Your task to perform on an android device: turn off location history Image 0: 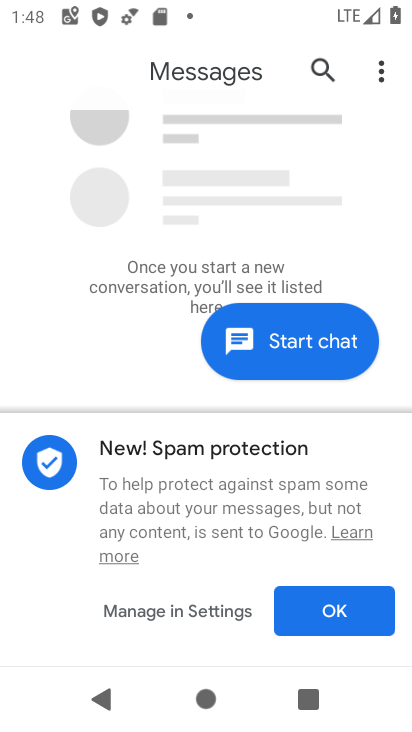
Step 0: press home button
Your task to perform on an android device: turn off location history Image 1: 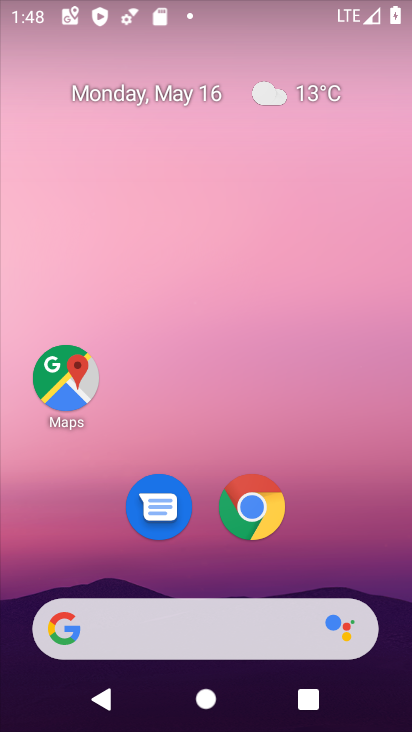
Step 1: drag from (329, 523) to (221, 57)
Your task to perform on an android device: turn off location history Image 2: 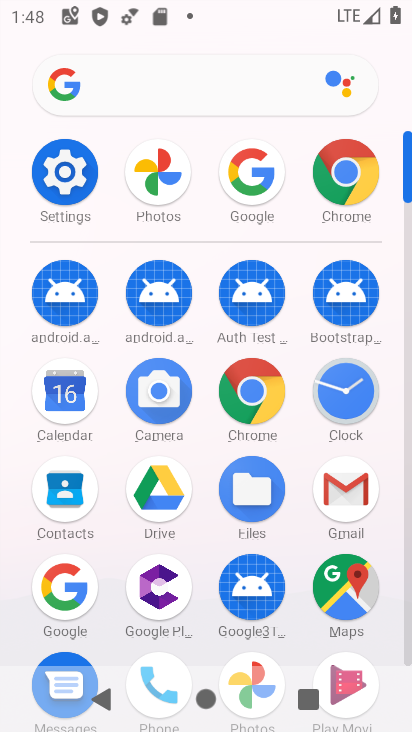
Step 2: click (56, 194)
Your task to perform on an android device: turn off location history Image 3: 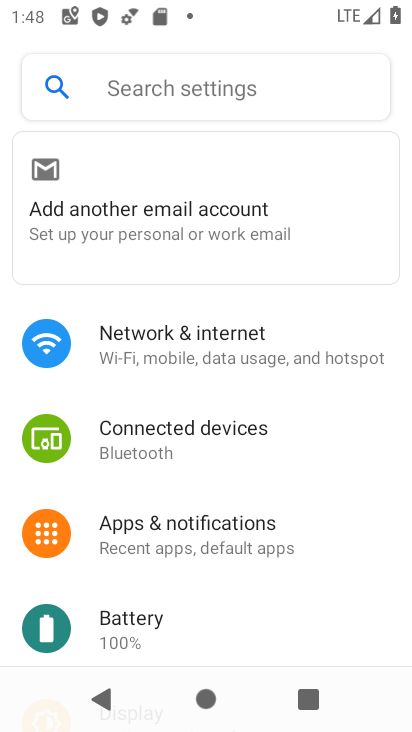
Step 3: drag from (240, 547) to (235, 172)
Your task to perform on an android device: turn off location history Image 4: 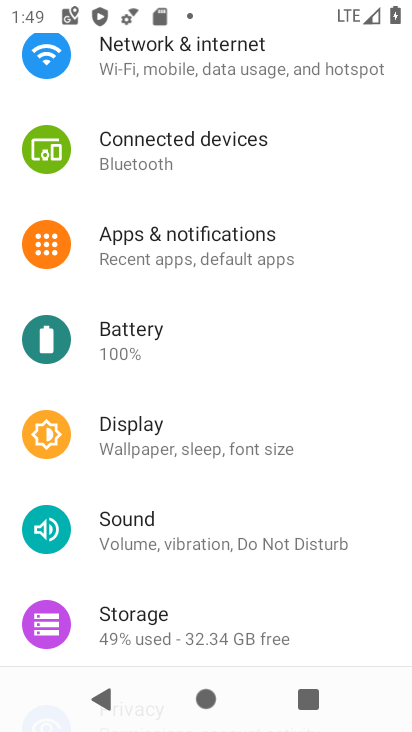
Step 4: drag from (210, 533) to (220, 314)
Your task to perform on an android device: turn off location history Image 5: 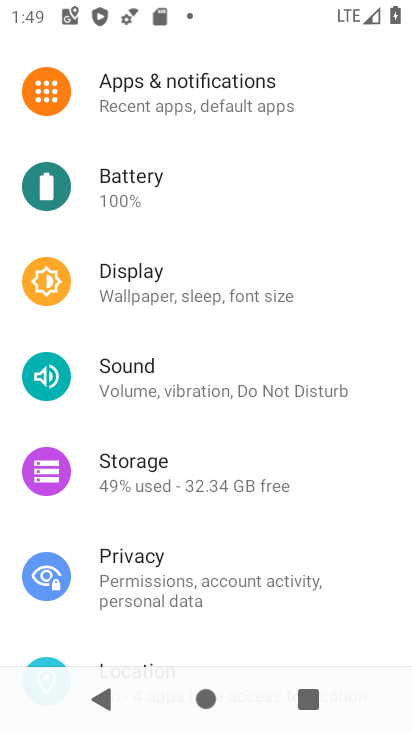
Step 5: drag from (185, 557) to (204, 317)
Your task to perform on an android device: turn off location history Image 6: 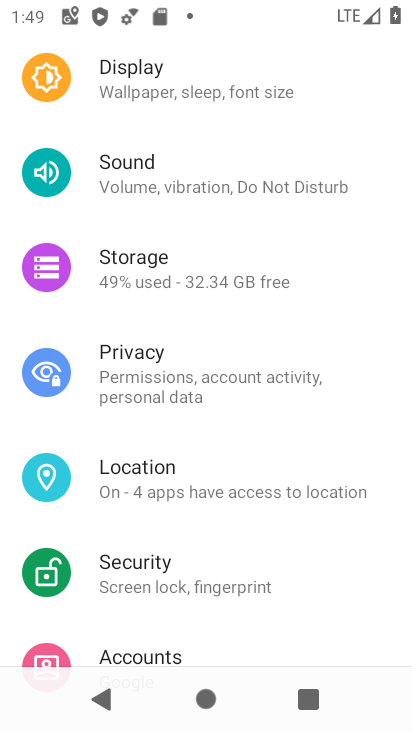
Step 6: click (186, 483)
Your task to perform on an android device: turn off location history Image 7: 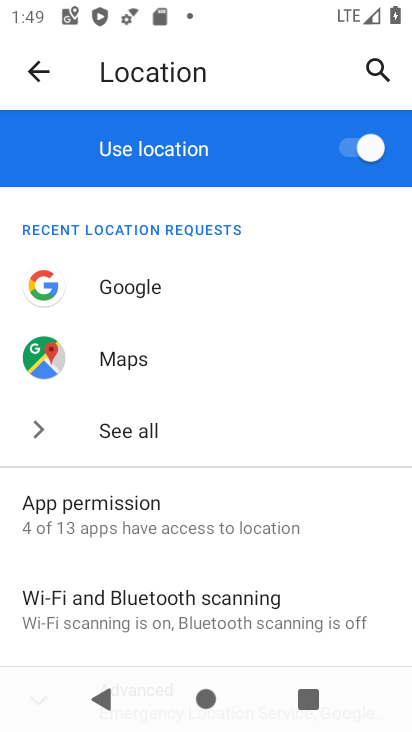
Step 7: drag from (231, 517) to (210, 164)
Your task to perform on an android device: turn off location history Image 8: 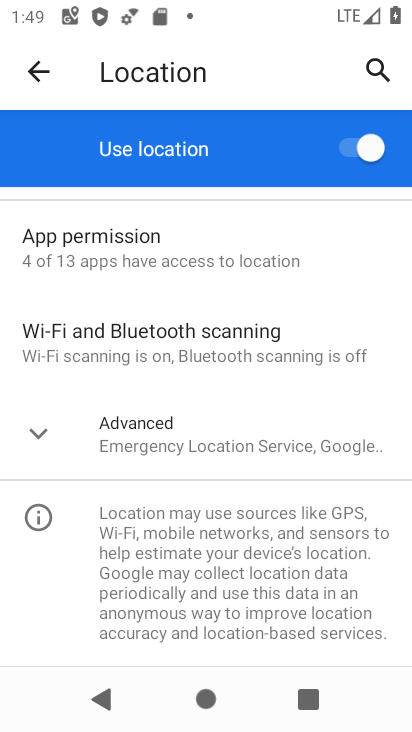
Step 8: click (220, 451)
Your task to perform on an android device: turn off location history Image 9: 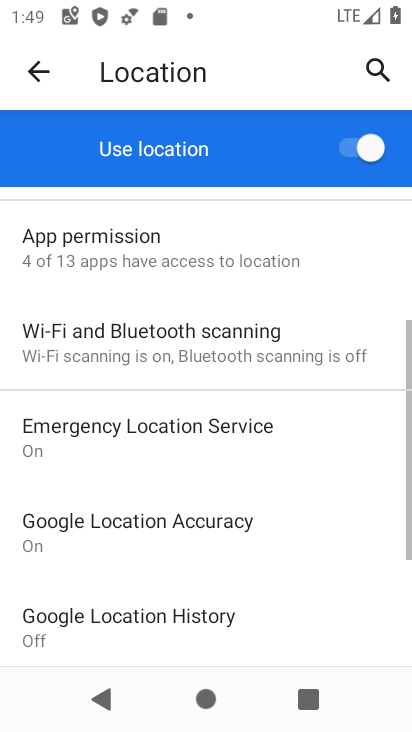
Step 9: drag from (250, 546) to (254, 424)
Your task to perform on an android device: turn off location history Image 10: 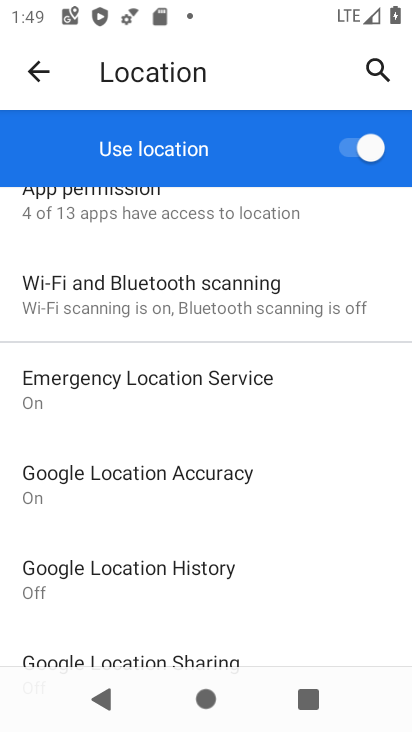
Step 10: click (193, 573)
Your task to perform on an android device: turn off location history Image 11: 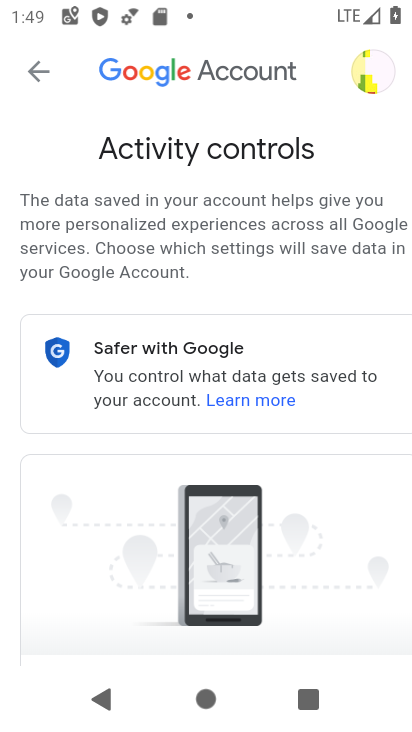
Step 11: task complete